Your task to perform on an android device: Search for logitech g pro on amazon.com, select the first entry, and add it to the cart. Image 0: 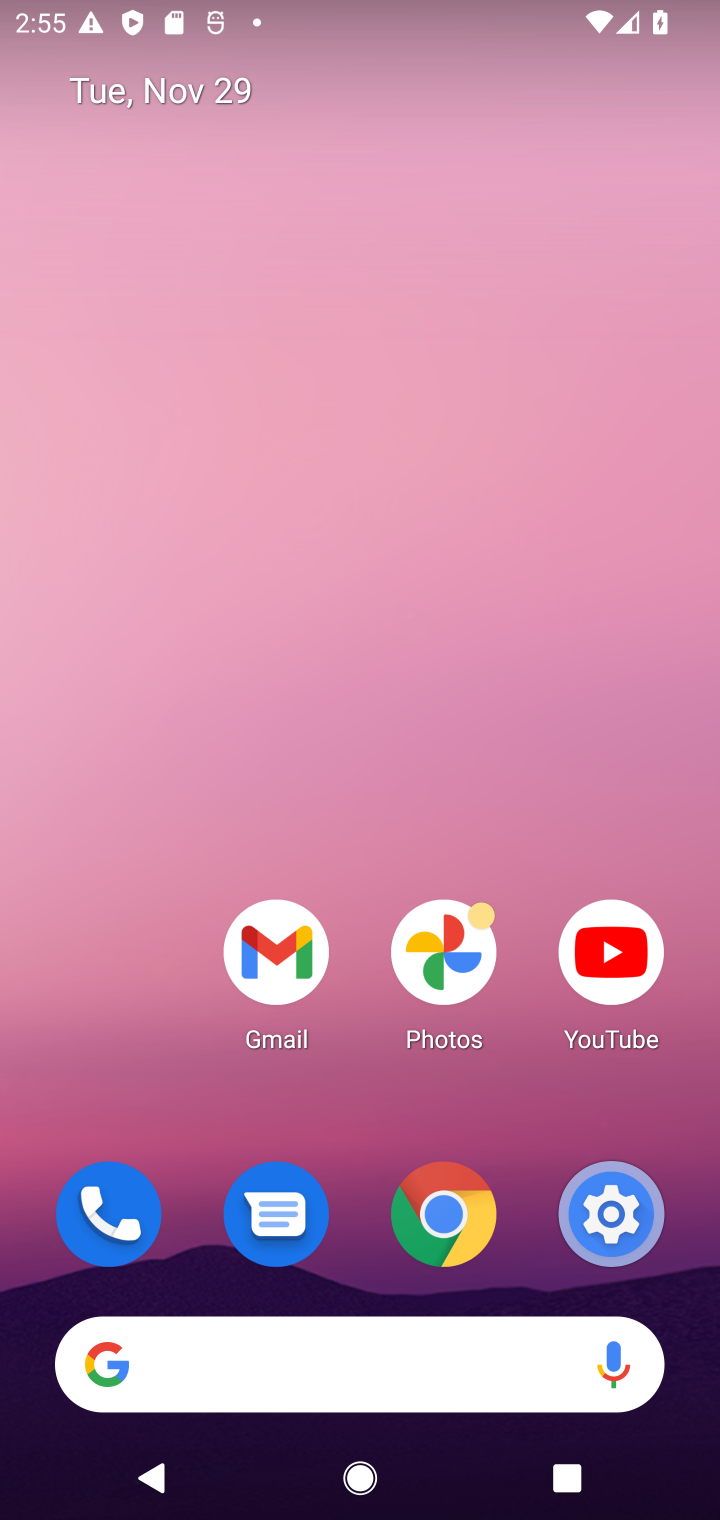
Step 0: click (260, 1315)
Your task to perform on an android device: Search for logitech g pro on amazon.com, select the first entry, and add it to the cart. Image 1: 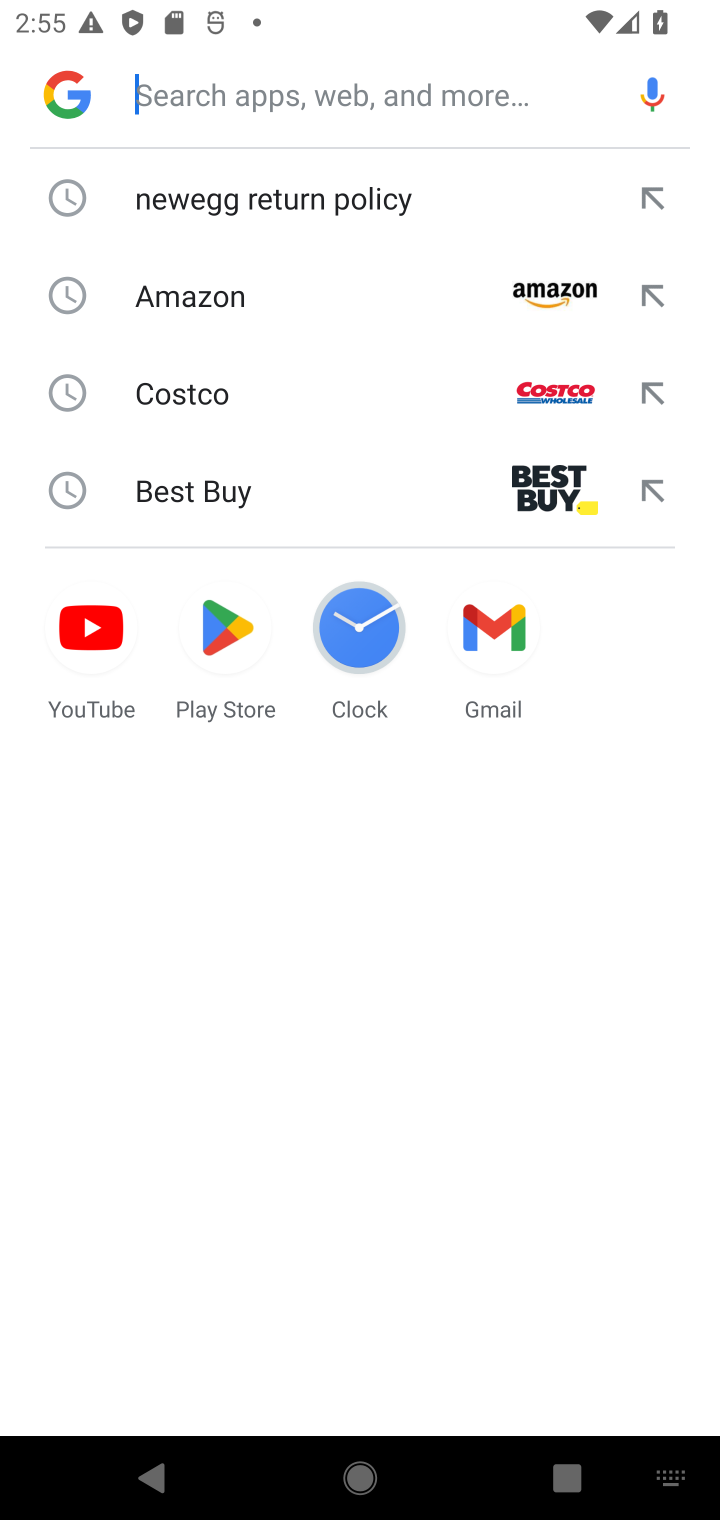
Step 1: type "amazon"
Your task to perform on an android device: Search for logitech g pro on amazon.com, select the first entry, and add it to the cart. Image 2: 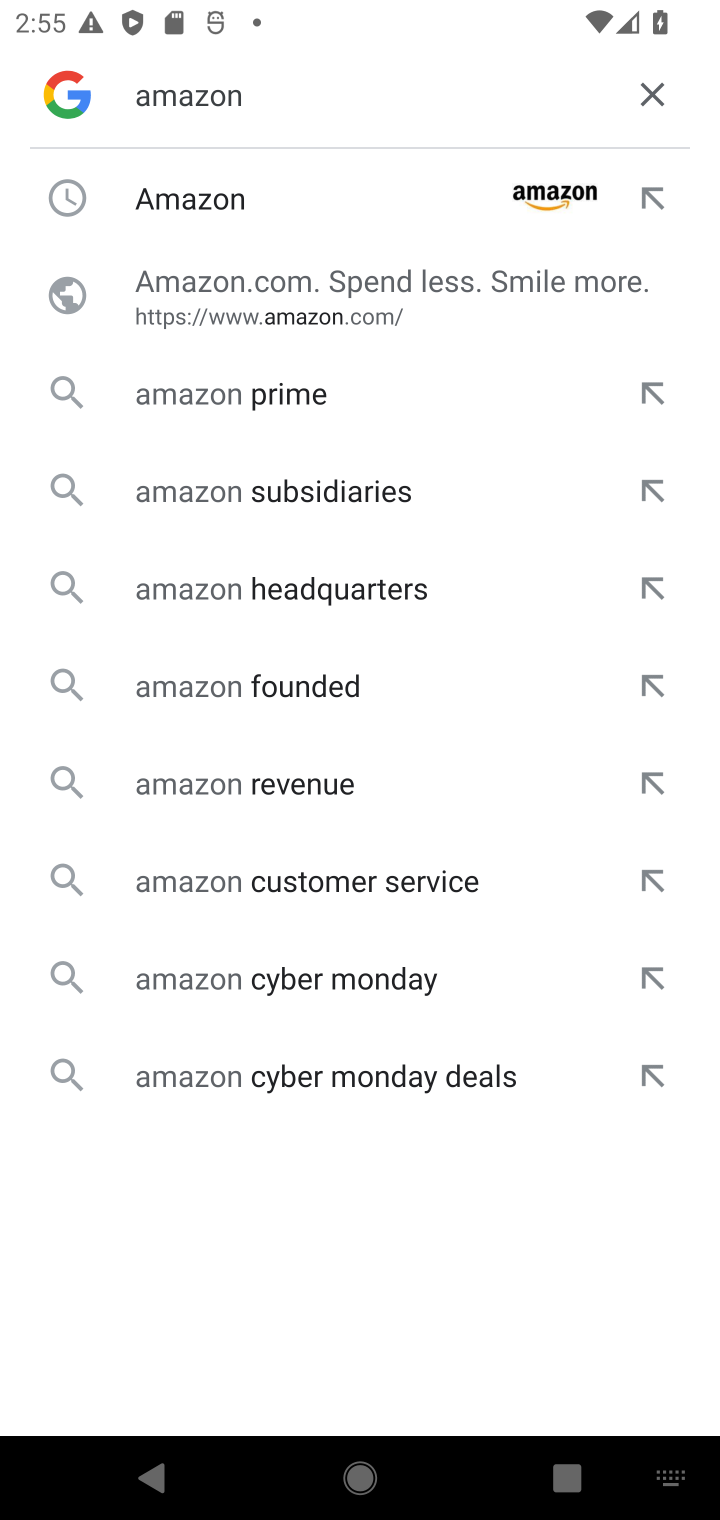
Step 2: click (306, 191)
Your task to perform on an android device: Search for logitech g pro on amazon.com, select the first entry, and add it to the cart. Image 3: 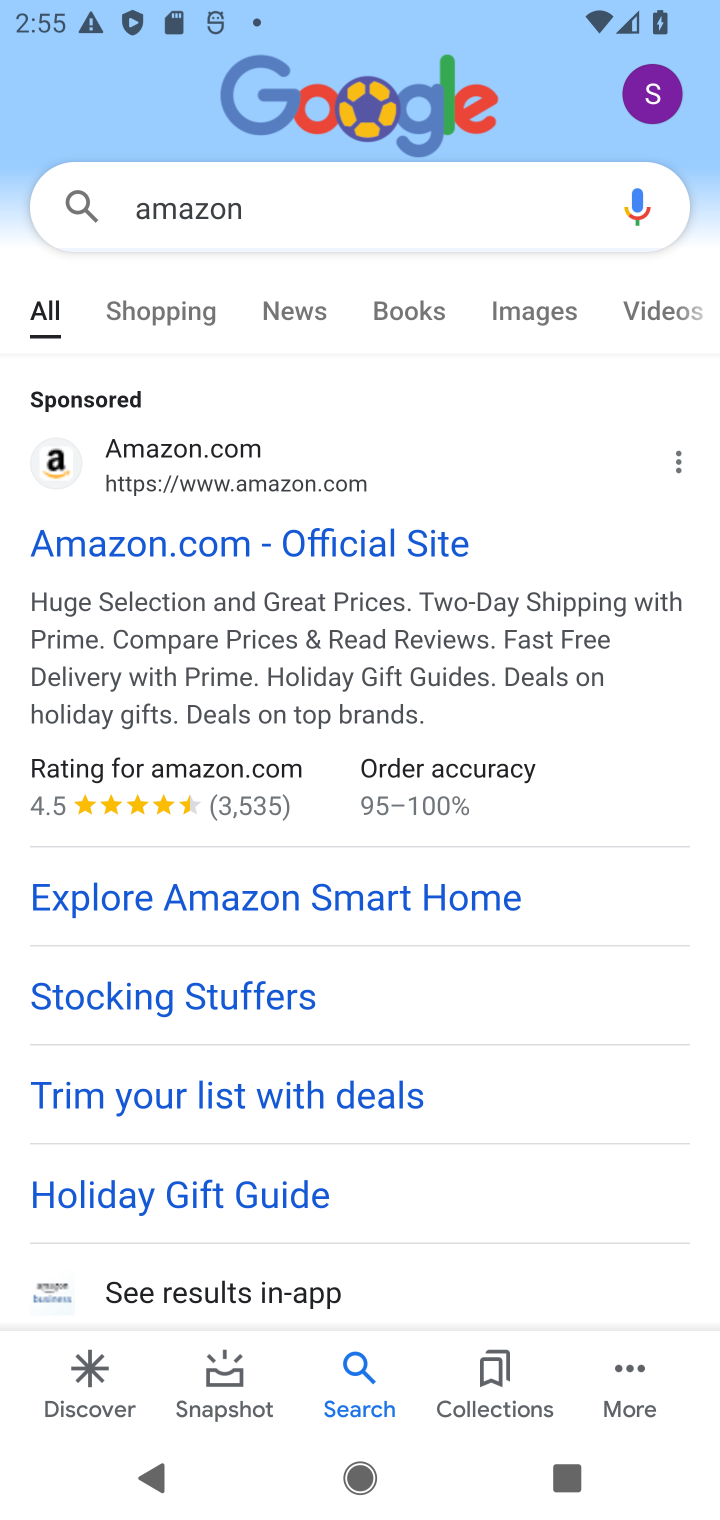
Step 3: click (206, 481)
Your task to perform on an android device: Search for logitech g pro on amazon.com, select the first entry, and add it to the cart. Image 4: 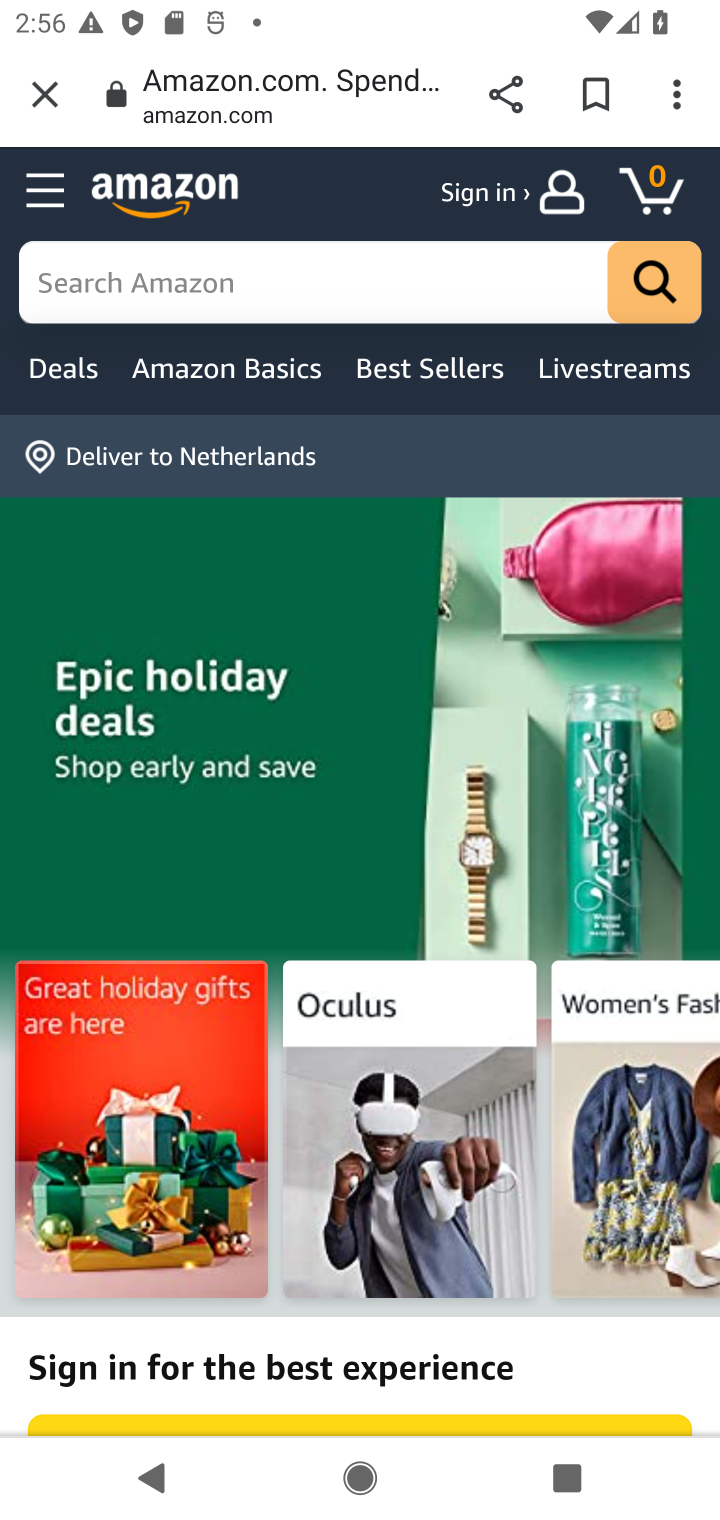
Step 4: click (310, 276)
Your task to perform on an android device: Search for logitech g pro on amazon.com, select the first entry, and add it to the cart. Image 5: 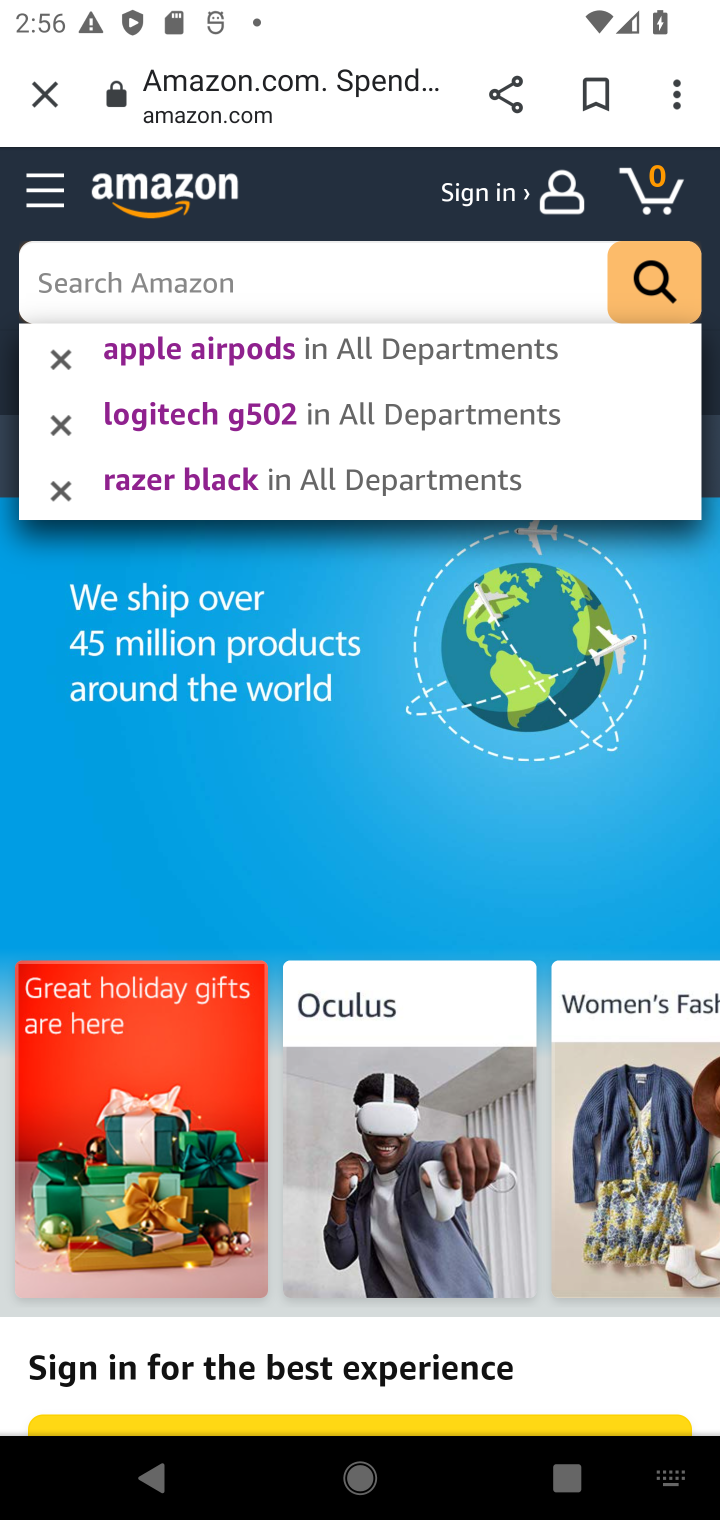
Step 5: type "logitech g pro"
Your task to perform on an android device: Search for logitech g pro on amazon.com, select the first entry, and add it to the cart. Image 6: 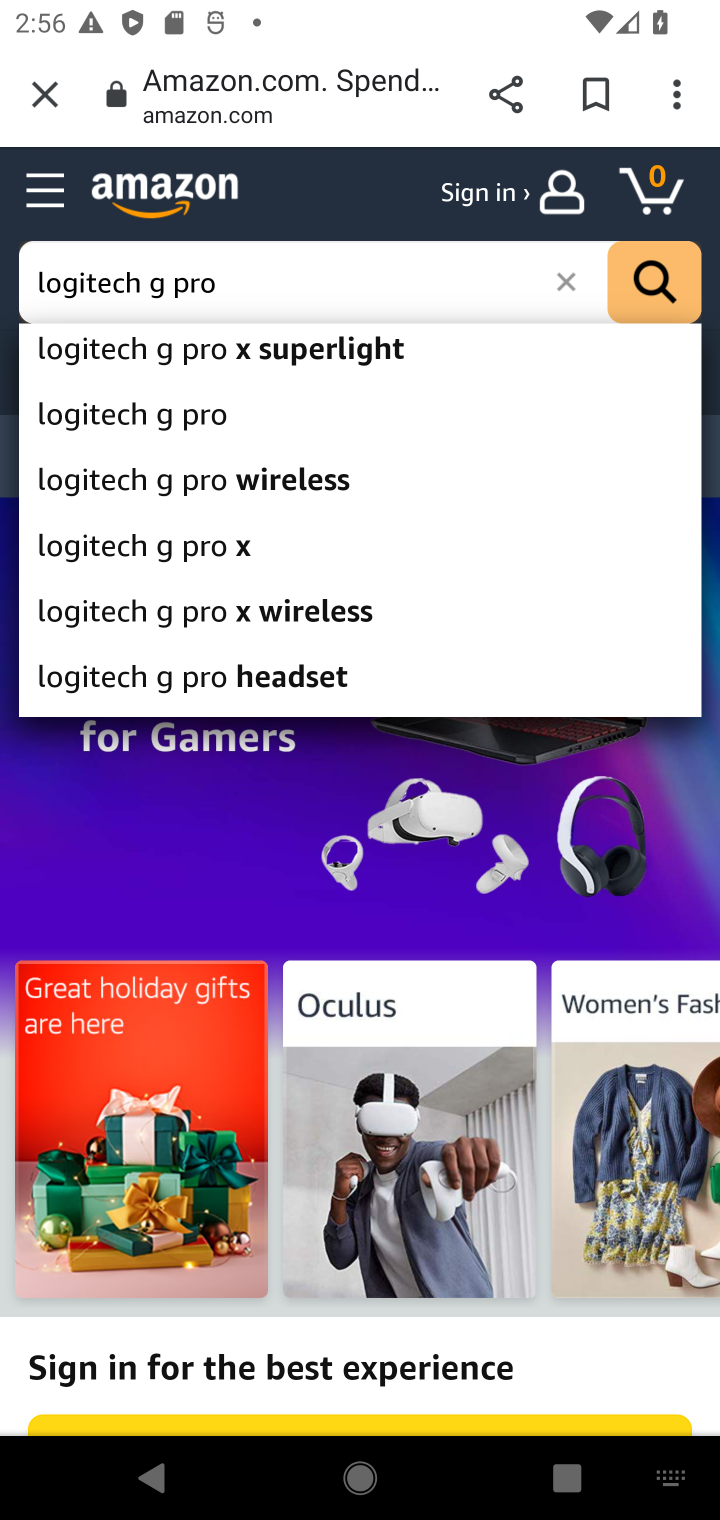
Step 6: click (294, 391)
Your task to perform on an android device: Search for logitech g pro on amazon.com, select the first entry, and add it to the cart. Image 7: 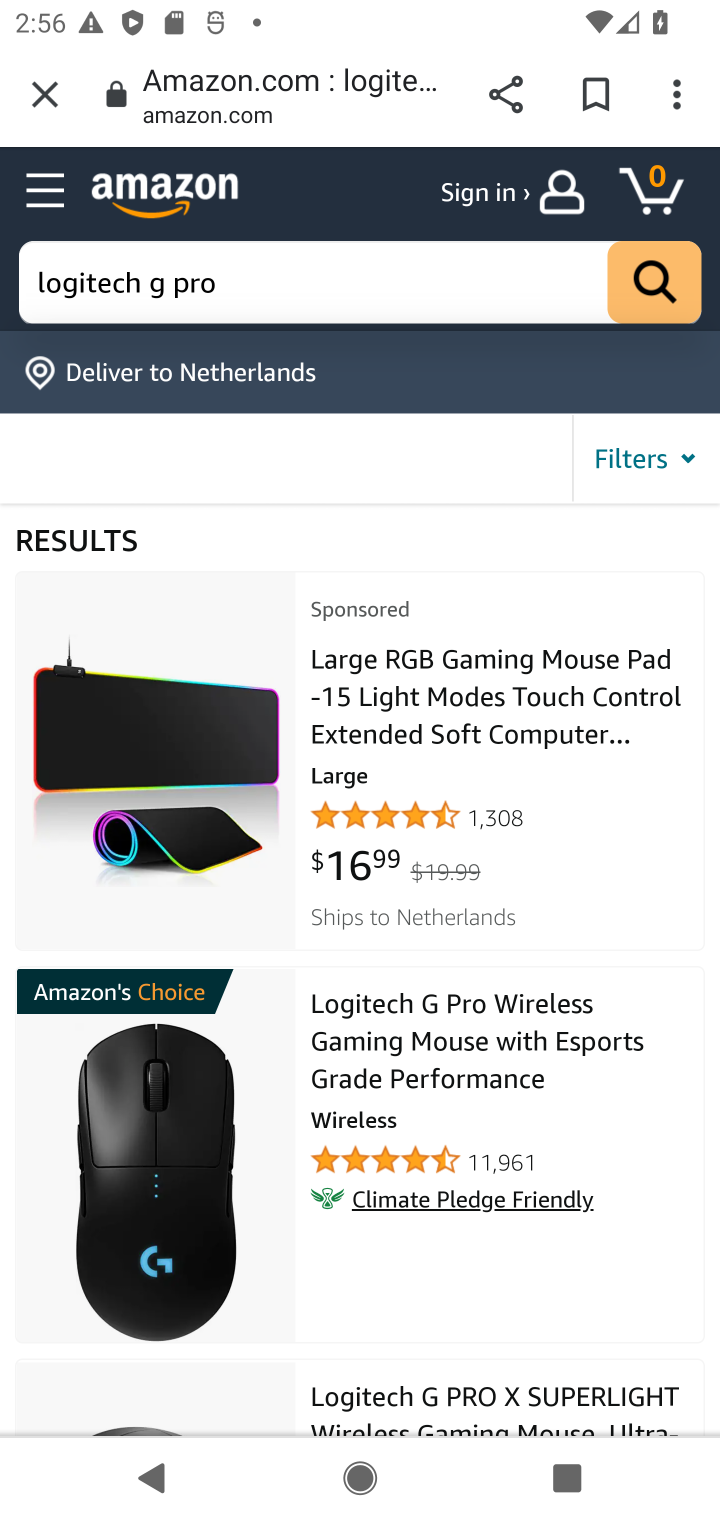
Step 7: click (492, 782)
Your task to perform on an android device: Search for logitech g pro on amazon.com, select the first entry, and add it to the cart. Image 8: 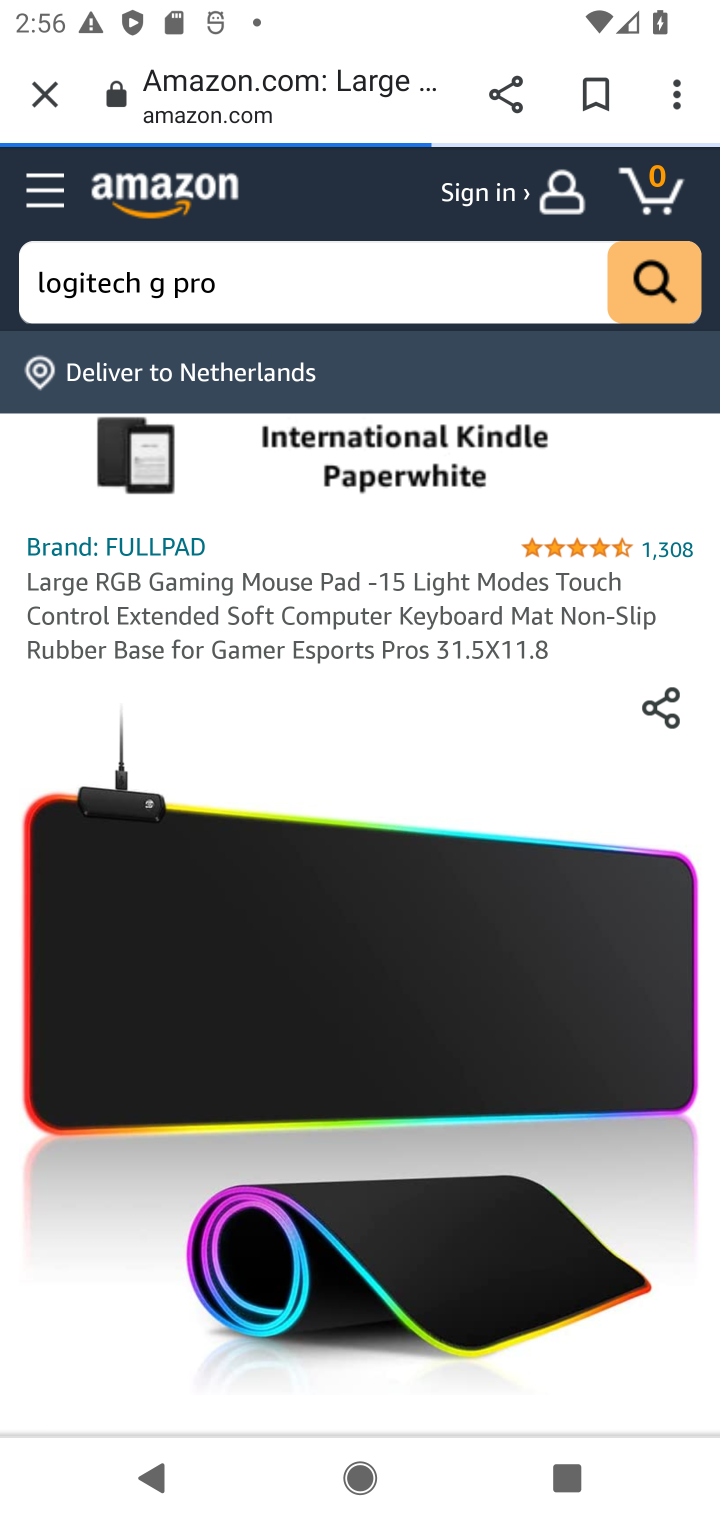
Step 8: task complete